Your task to perform on an android device: Open the phone app and click the voicemail tab. Image 0: 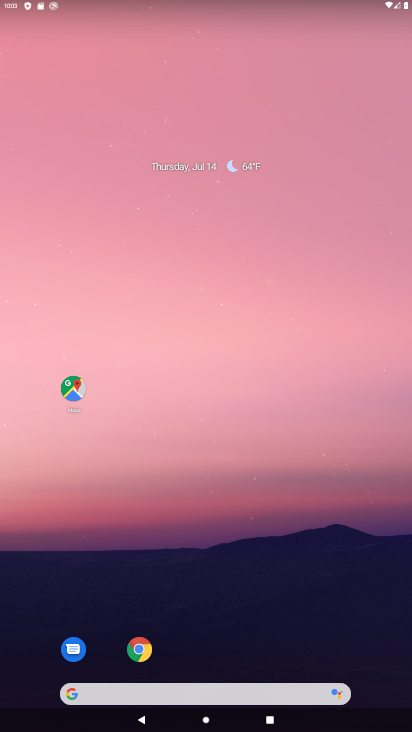
Step 0: drag from (252, 628) to (313, 177)
Your task to perform on an android device: Open the phone app and click the voicemail tab. Image 1: 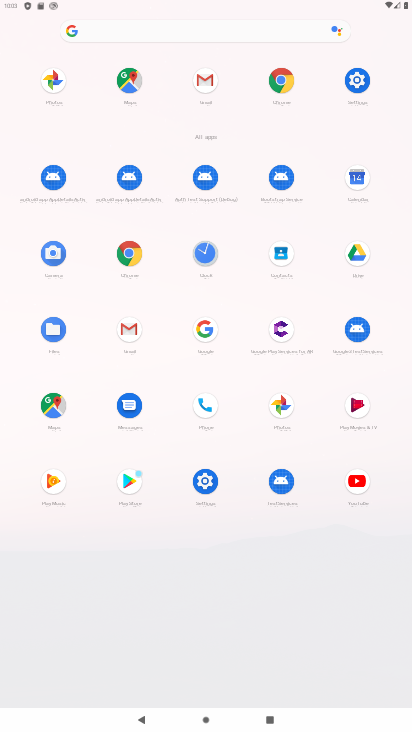
Step 1: click (206, 404)
Your task to perform on an android device: Open the phone app and click the voicemail tab. Image 2: 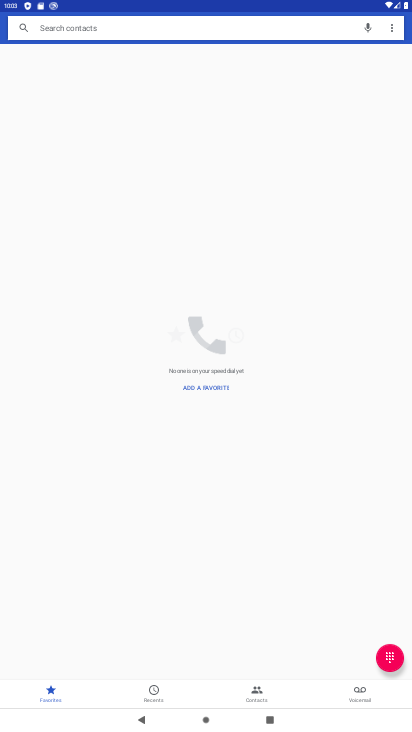
Step 2: click (367, 694)
Your task to perform on an android device: Open the phone app and click the voicemail tab. Image 3: 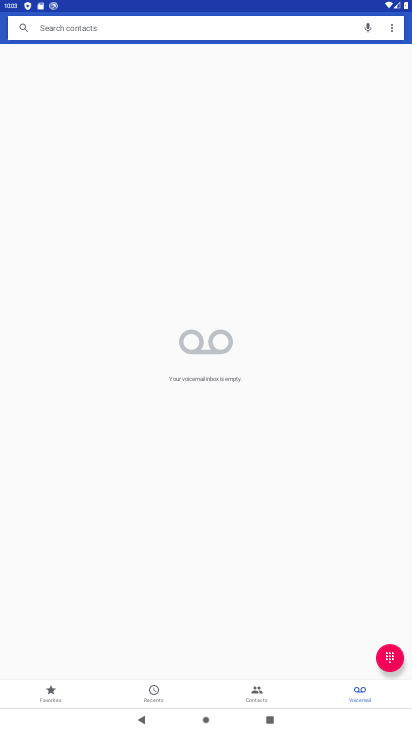
Step 3: task complete